Your task to perform on an android device: turn on location history Image 0: 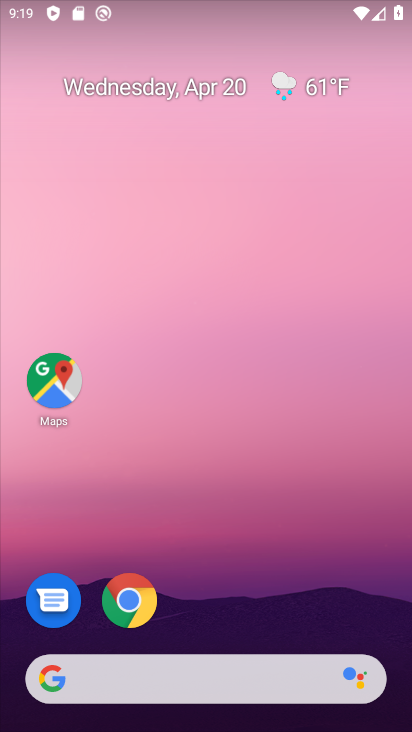
Step 0: drag from (221, 629) to (191, 65)
Your task to perform on an android device: turn on location history Image 1: 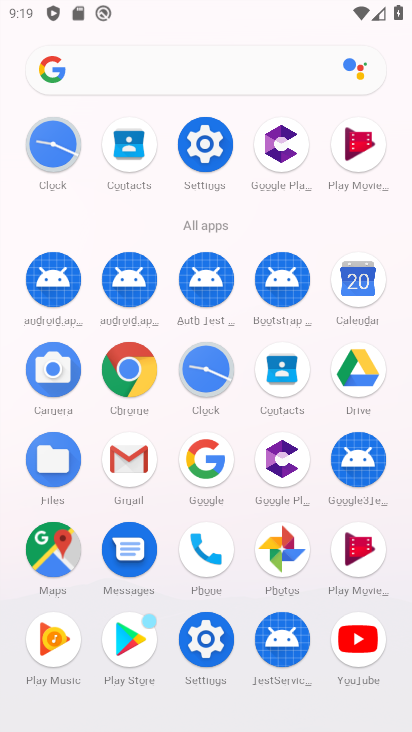
Step 1: click (194, 162)
Your task to perform on an android device: turn on location history Image 2: 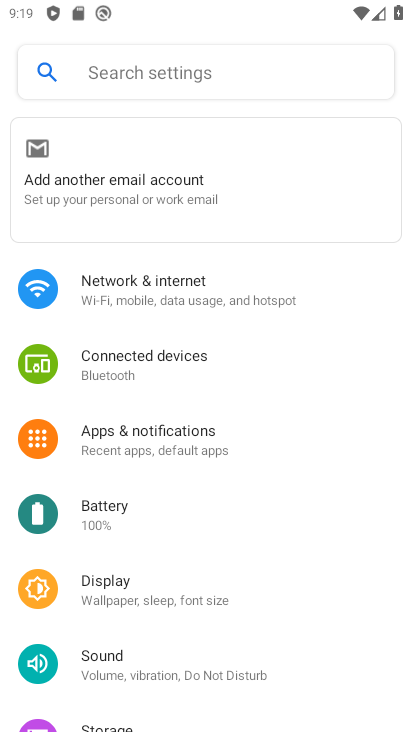
Step 2: drag from (127, 682) to (120, 255)
Your task to perform on an android device: turn on location history Image 3: 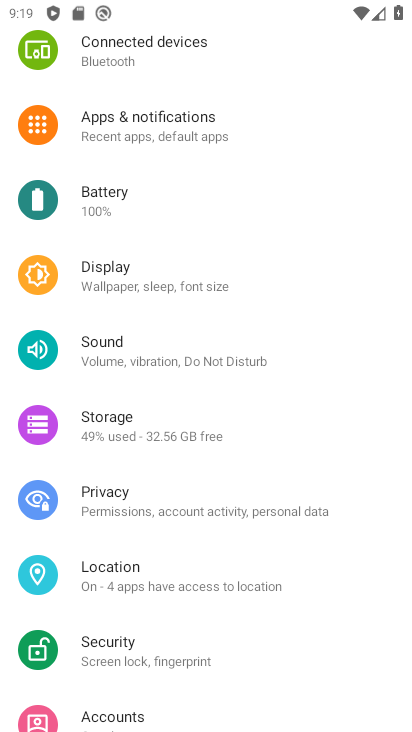
Step 3: click (109, 585)
Your task to perform on an android device: turn on location history Image 4: 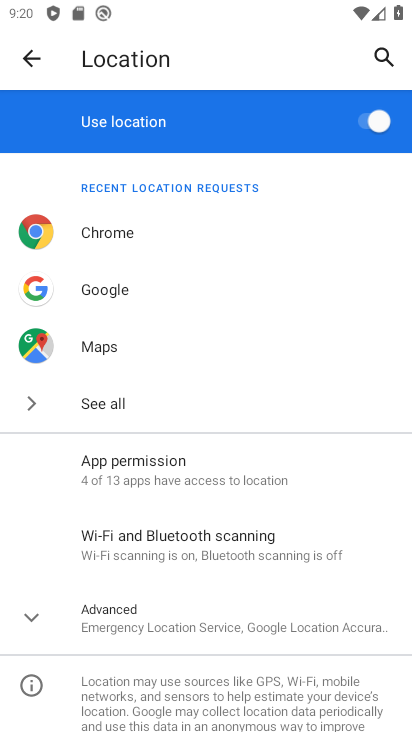
Step 4: click (147, 646)
Your task to perform on an android device: turn on location history Image 5: 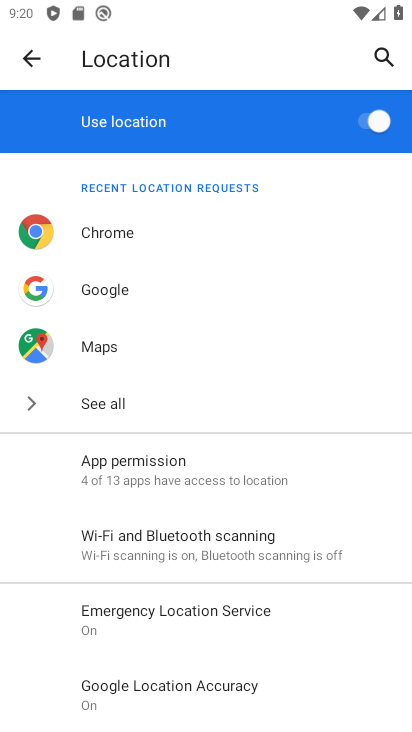
Step 5: drag from (186, 654) to (254, 152)
Your task to perform on an android device: turn on location history Image 6: 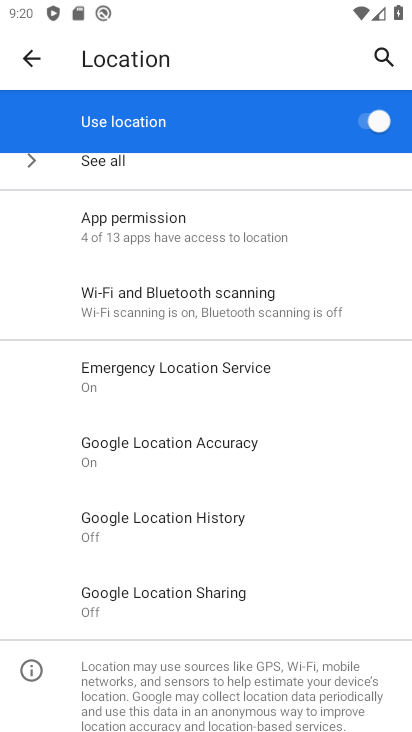
Step 6: click (176, 527)
Your task to perform on an android device: turn on location history Image 7: 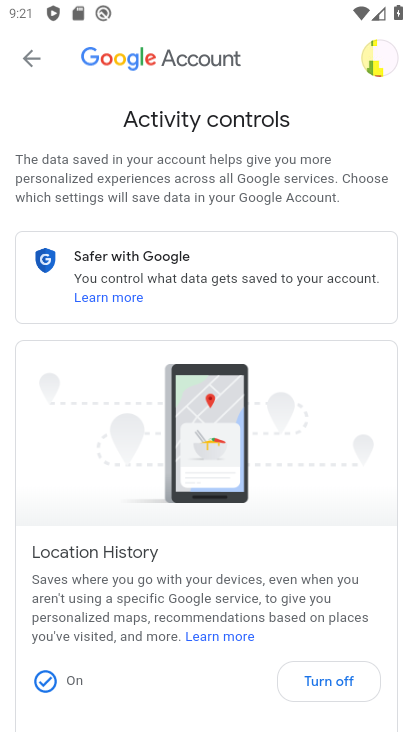
Step 7: task complete